Your task to perform on an android device: uninstall "Yahoo Mail" Image 0: 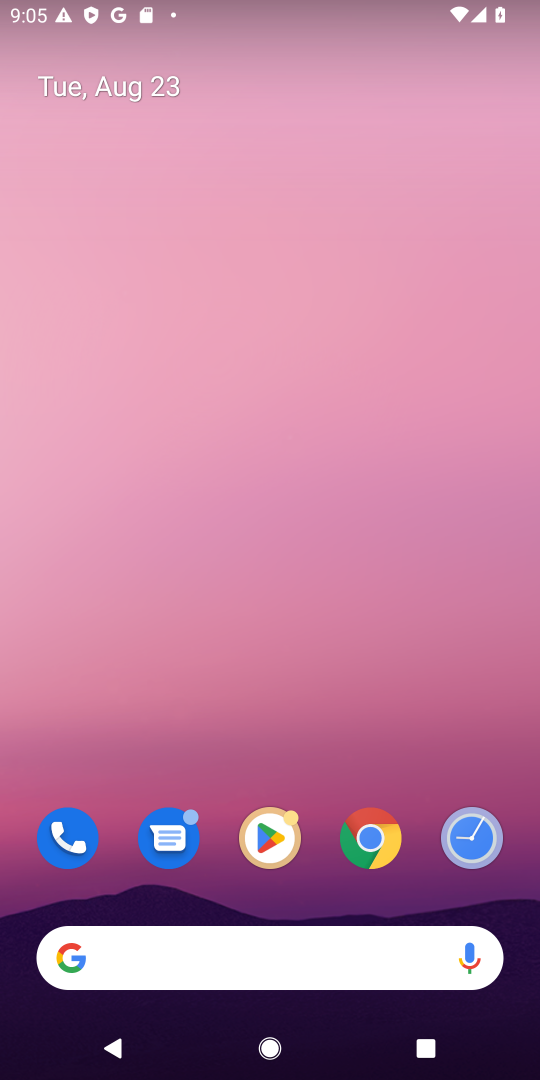
Step 0: click (272, 836)
Your task to perform on an android device: uninstall "Yahoo Mail" Image 1: 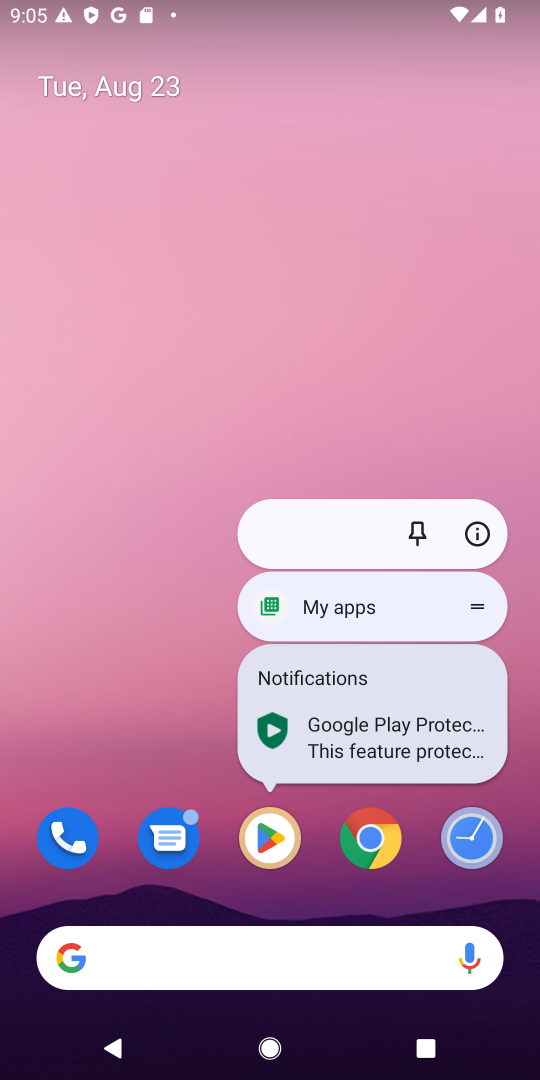
Step 1: click (272, 836)
Your task to perform on an android device: uninstall "Yahoo Mail" Image 2: 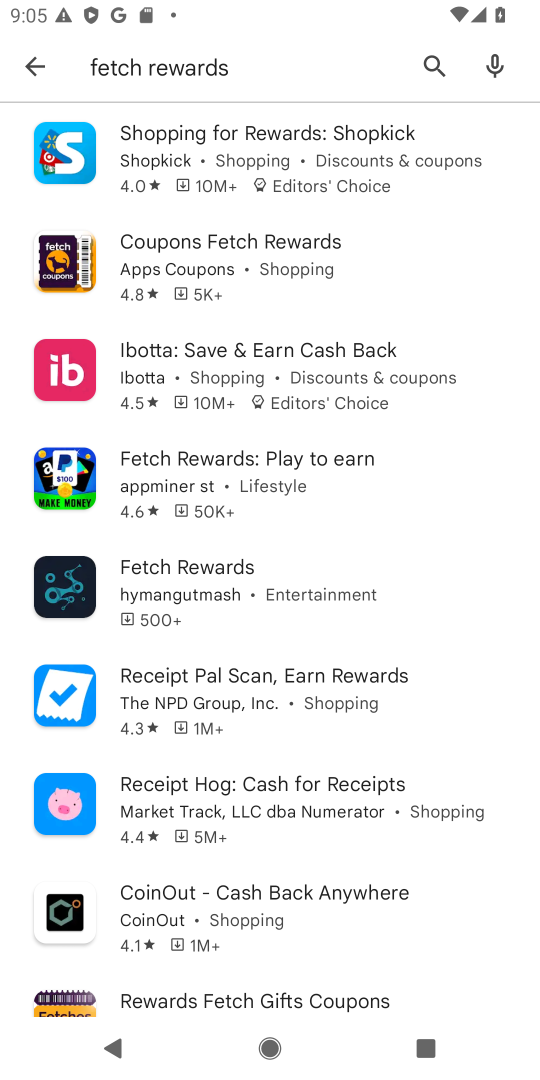
Step 2: click (436, 70)
Your task to perform on an android device: uninstall "Yahoo Mail" Image 3: 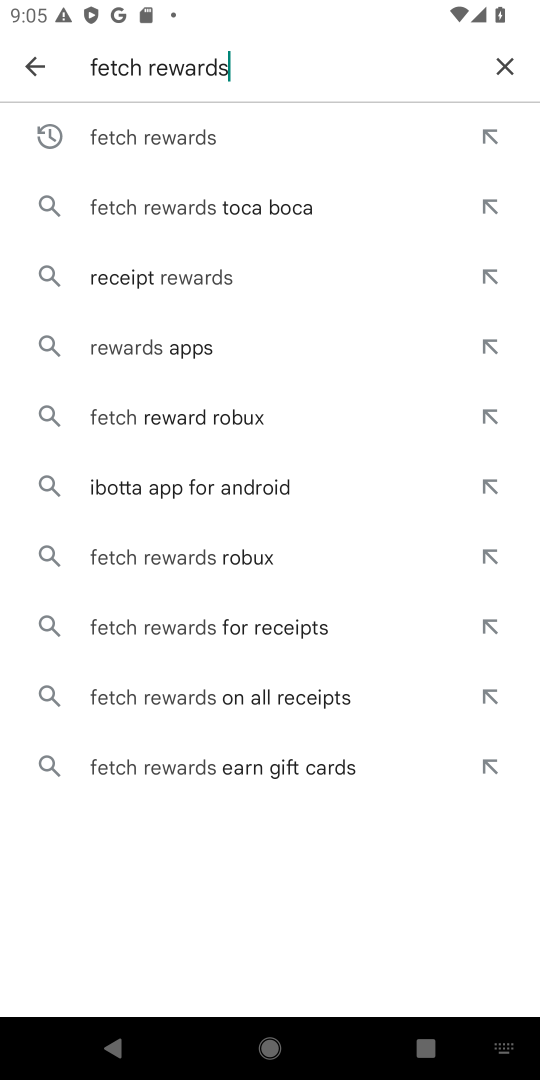
Step 3: click (493, 65)
Your task to perform on an android device: uninstall "Yahoo Mail" Image 4: 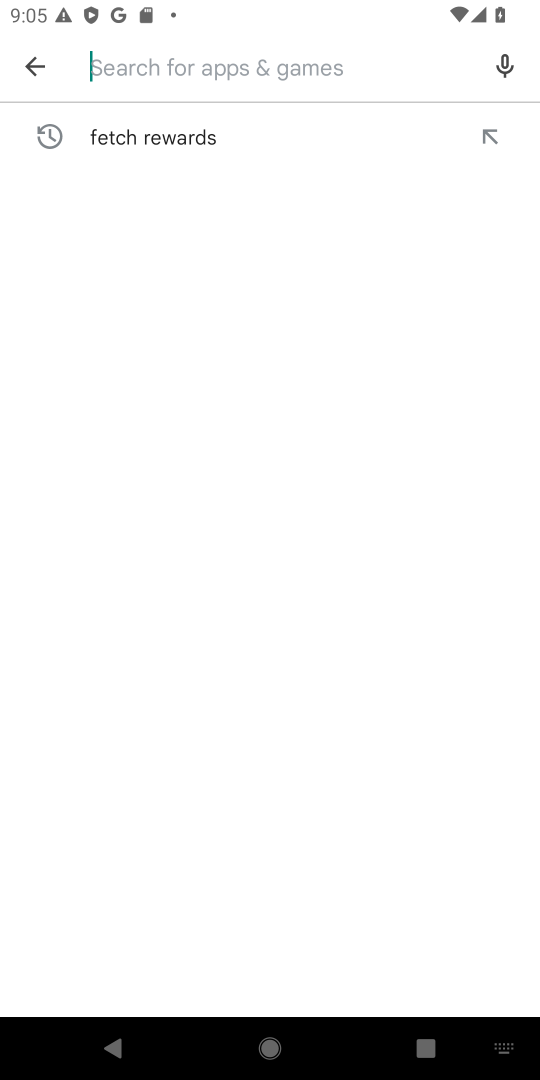
Step 4: type "Yahoo Mail"
Your task to perform on an android device: uninstall "Yahoo Mail" Image 5: 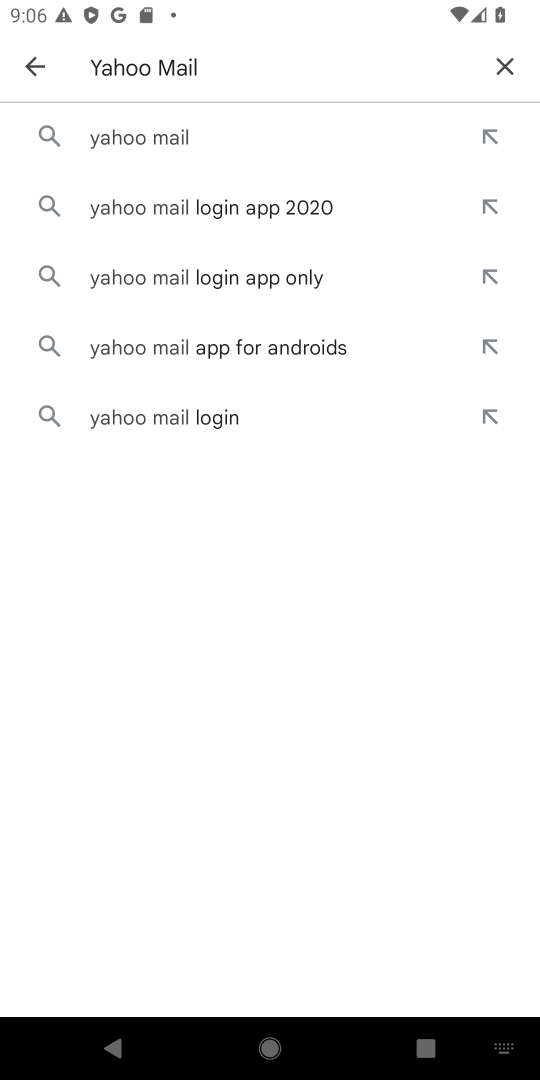
Step 5: click (205, 120)
Your task to perform on an android device: uninstall "Yahoo Mail" Image 6: 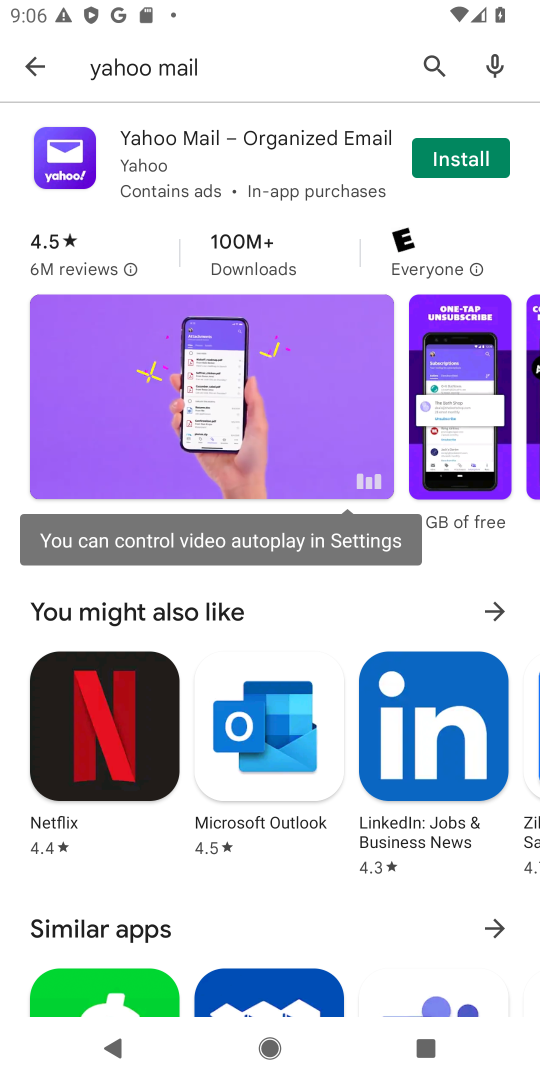
Step 6: task complete